Your task to perform on an android device: Is it going to rain today? Image 0: 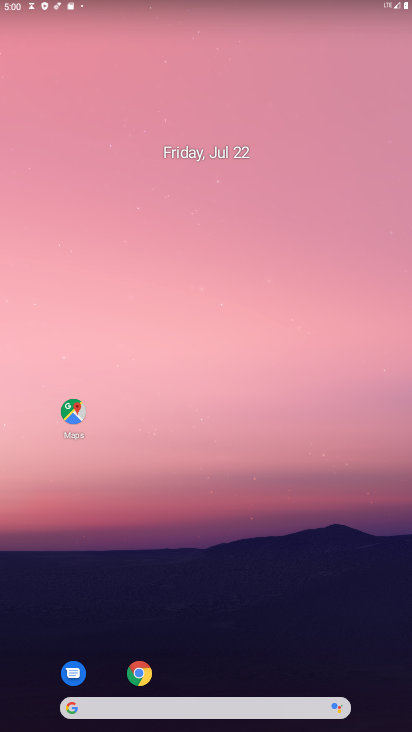
Step 0: press home button
Your task to perform on an android device: Is it going to rain today? Image 1: 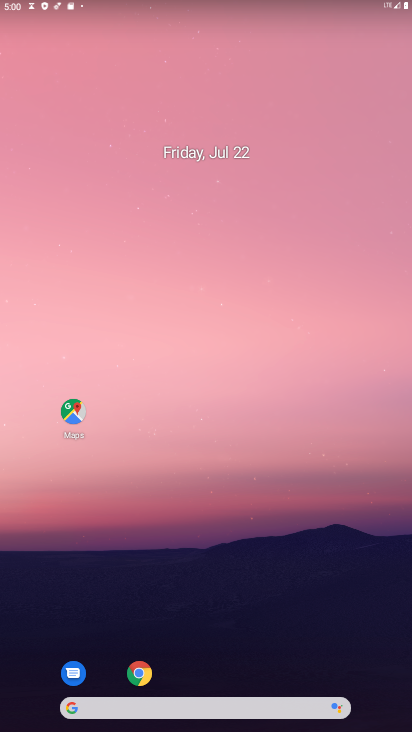
Step 1: click (69, 708)
Your task to perform on an android device: Is it going to rain today? Image 2: 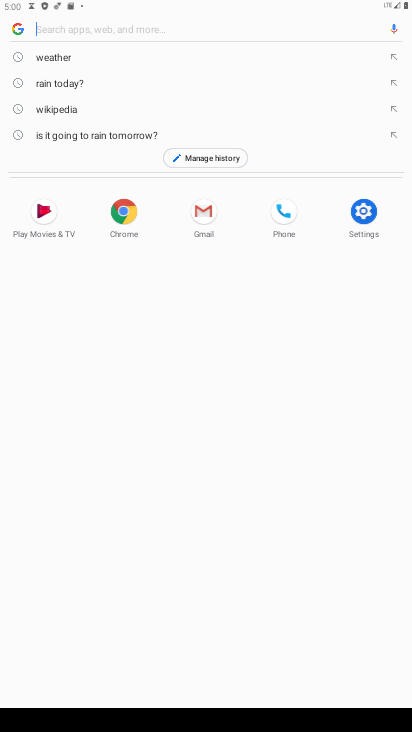
Step 2: click (50, 82)
Your task to perform on an android device: Is it going to rain today? Image 3: 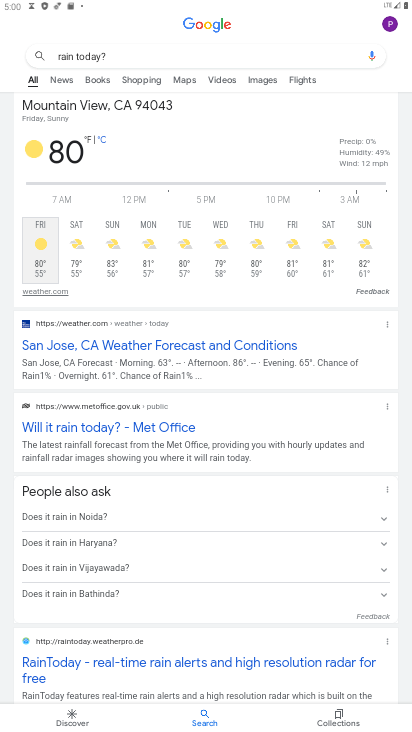
Step 3: task complete